Your task to perform on an android device: turn off improve location accuracy Image 0: 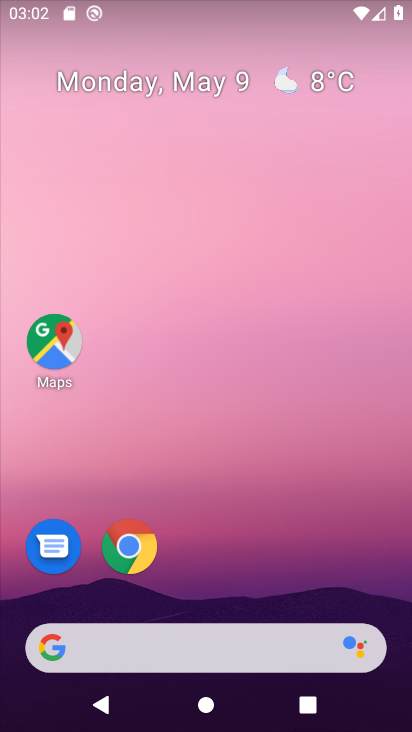
Step 0: drag from (239, 550) to (268, 20)
Your task to perform on an android device: turn off improve location accuracy Image 1: 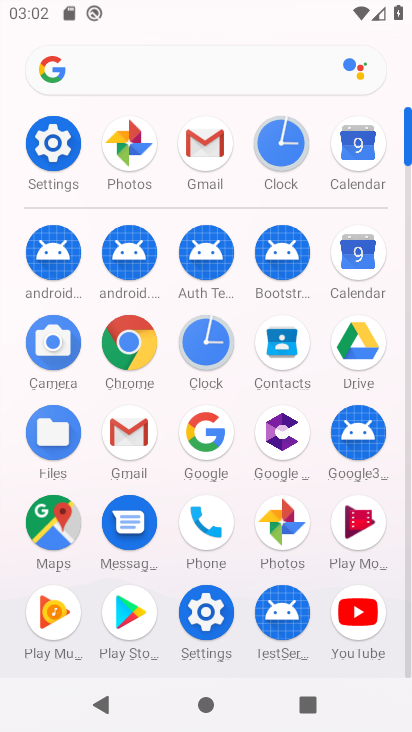
Step 1: click (65, 139)
Your task to perform on an android device: turn off improve location accuracy Image 2: 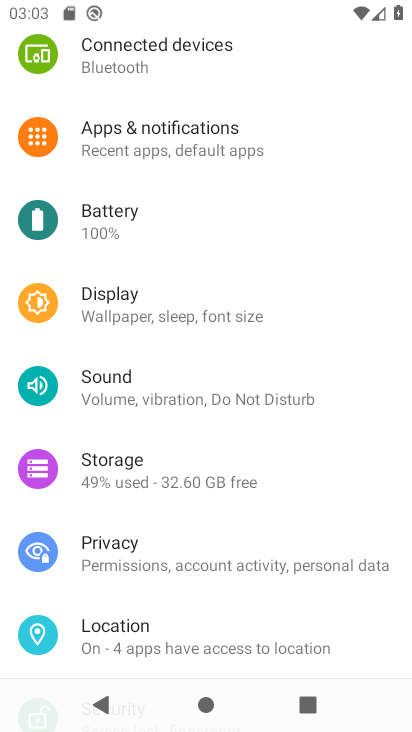
Step 2: click (203, 601)
Your task to perform on an android device: turn off improve location accuracy Image 3: 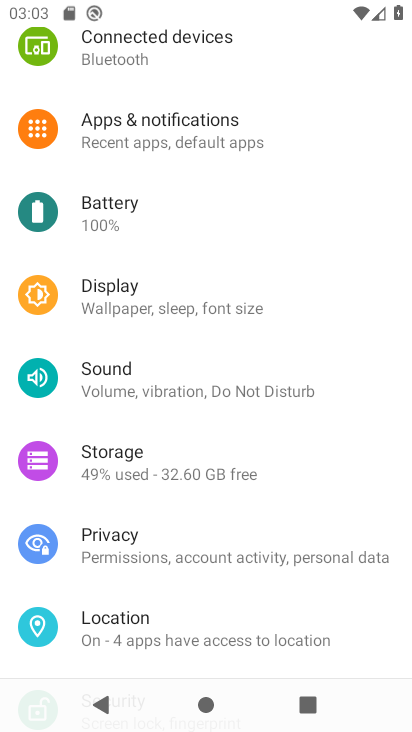
Step 3: click (193, 622)
Your task to perform on an android device: turn off improve location accuracy Image 4: 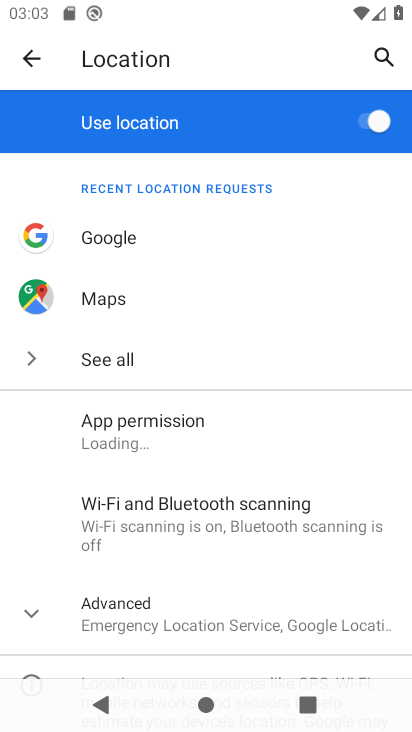
Step 4: click (30, 608)
Your task to perform on an android device: turn off improve location accuracy Image 5: 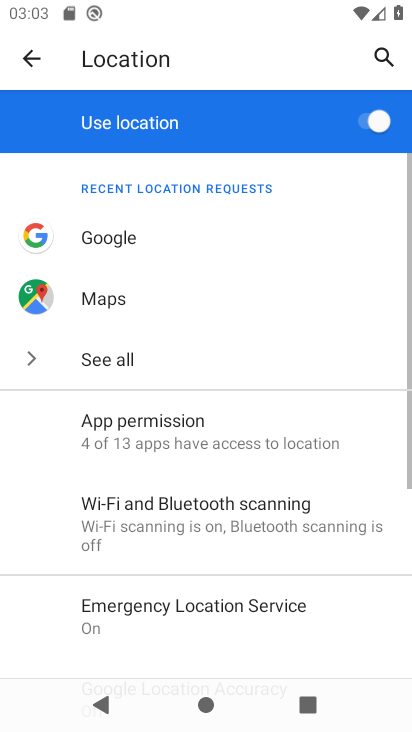
Step 5: task complete